Your task to perform on an android device: open app "PlayWell" Image 0: 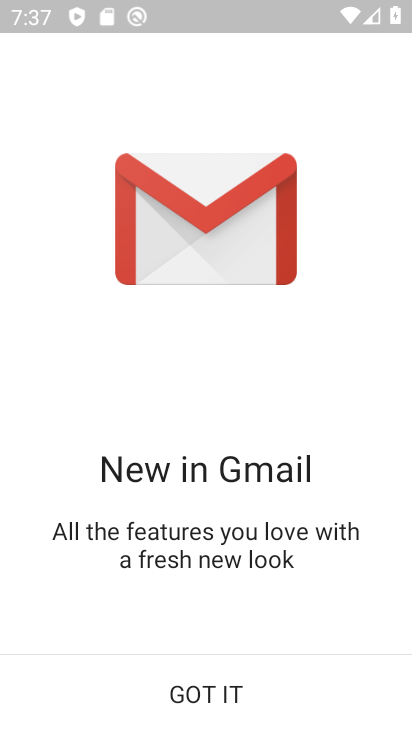
Step 0: press home button
Your task to perform on an android device: open app "PlayWell" Image 1: 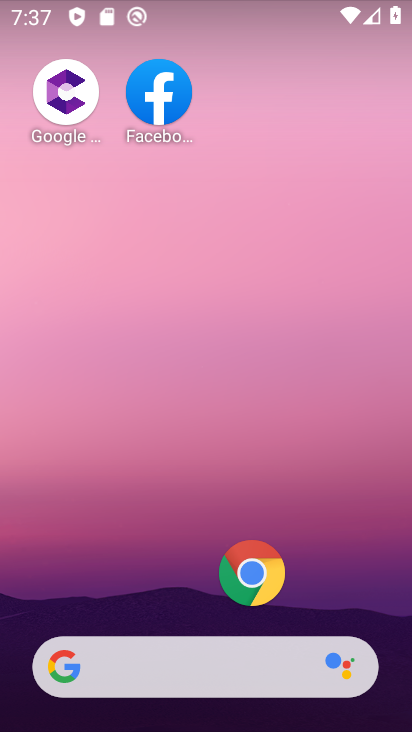
Step 1: drag from (184, 602) to (109, 3)
Your task to perform on an android device: open app "PlayWell" Image 2: 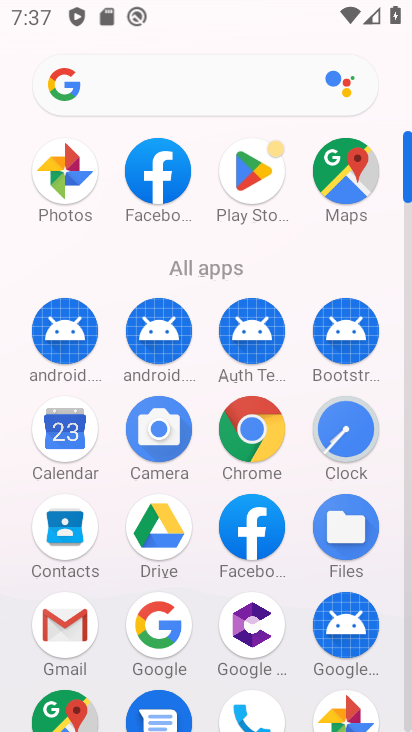
Step 2: click (247, 186)
Your task to perform on an android device: open app "PlayWell" Image 3: 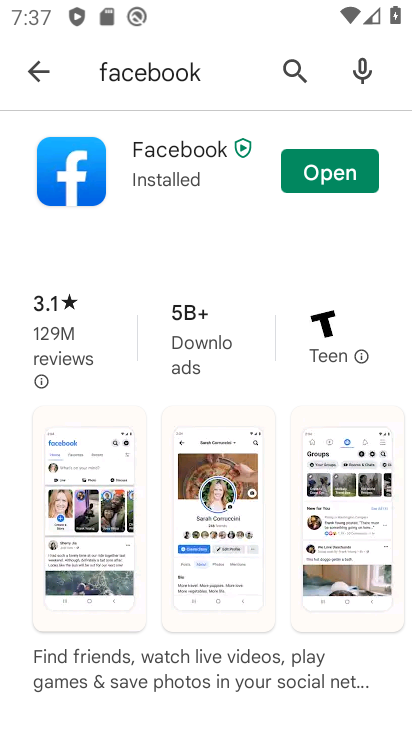
Step 3: click (40, 77)
Your task to perform on an android device: open app "PlayWell" Image 4: 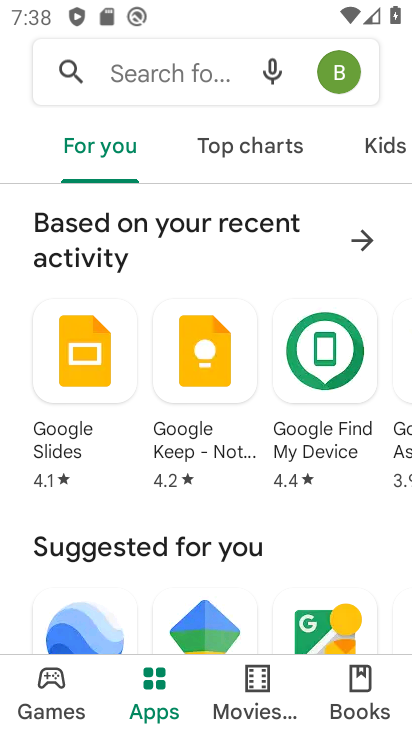
Step 4: click (161, 60)
Your task to perform on an android device: open app "PlayWell" Image 5: 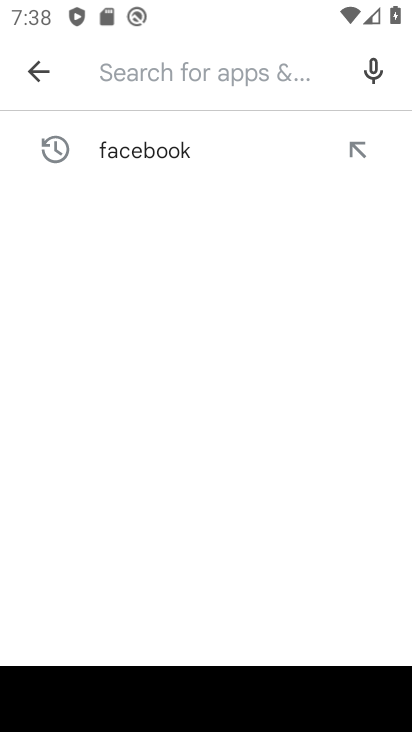
Step 5: type "PlayWell"
Your task to perform on an android device: open app "PlayWell" Image 6: 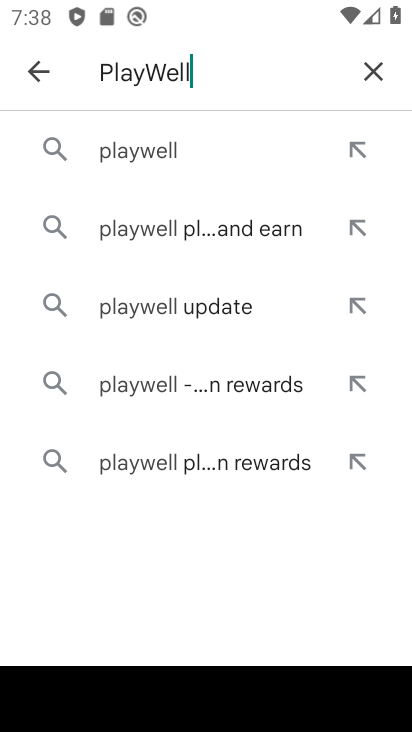
Step 6: click (150, 154)
Your task to perform on an android device: open app "PlayWell" Image 7: 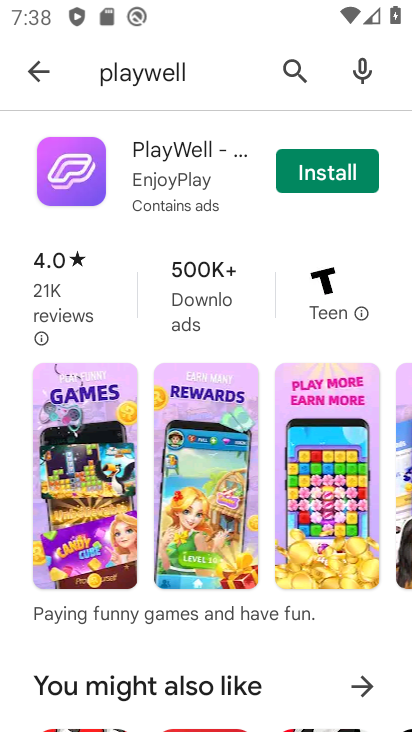
Step 7: click (303, 170)
Your task to perform on an android device: open app "PlayWell" Image 8: 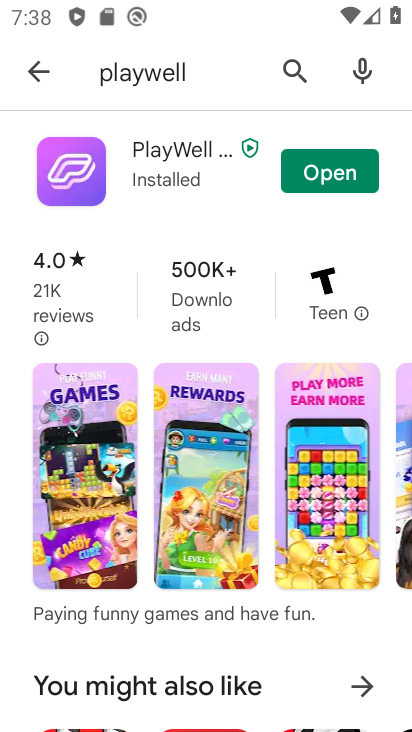
Step 8: click (303, 170)
Your task to perform on an android device: open app "PlayWell" Image 9: 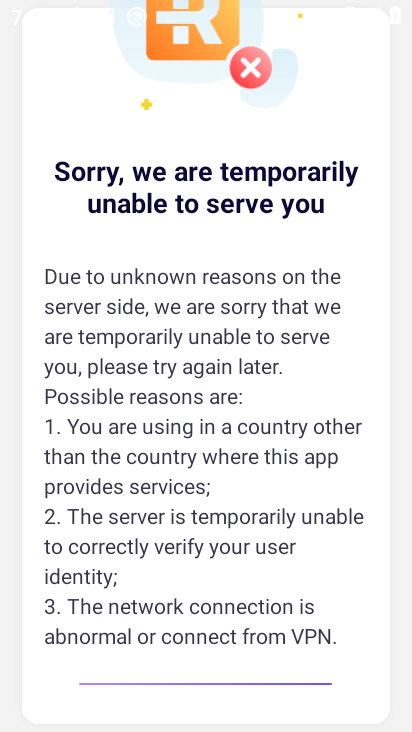
Step 9: task complete